Your task to perform on an android device: turn off sleep mode Image 0: 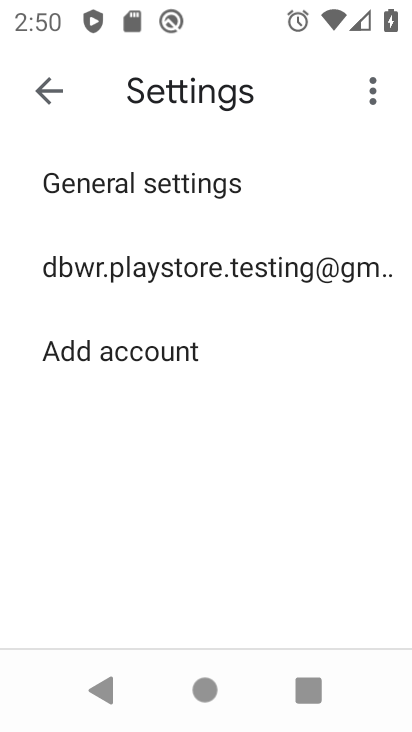
Step 0: press home button
Your task to perform on an android device: turn off sleep mode Image 1: 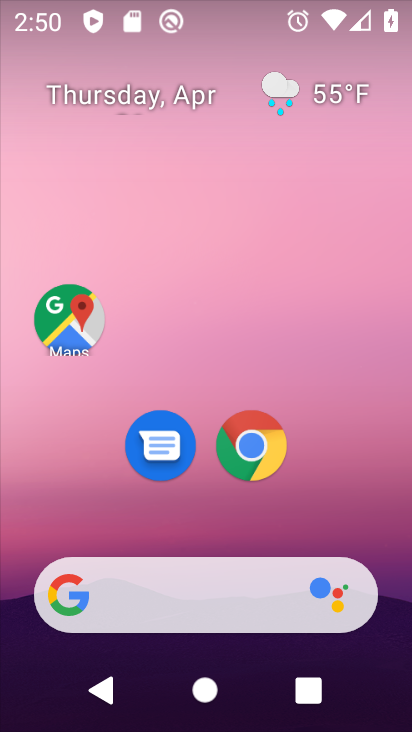
Step 1: drag from (202, 722) to (202, 97)
Your task to perform on an android device: turn off sleep mode Image 2: 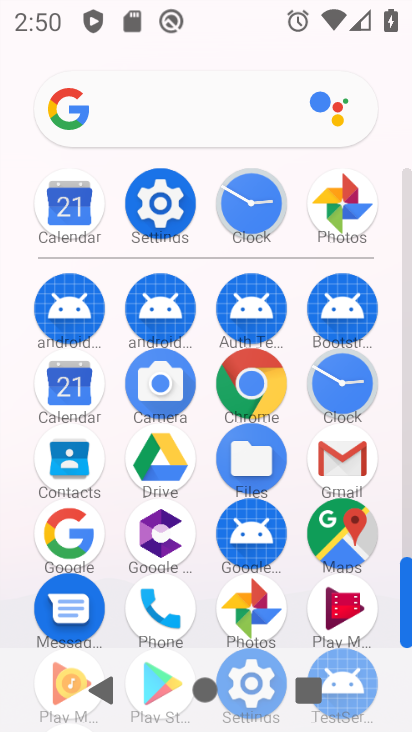
Step 2: drag from (194, 604) to (192, 210)
Your task to perform on an android device: turn off sleep mode Image 3: 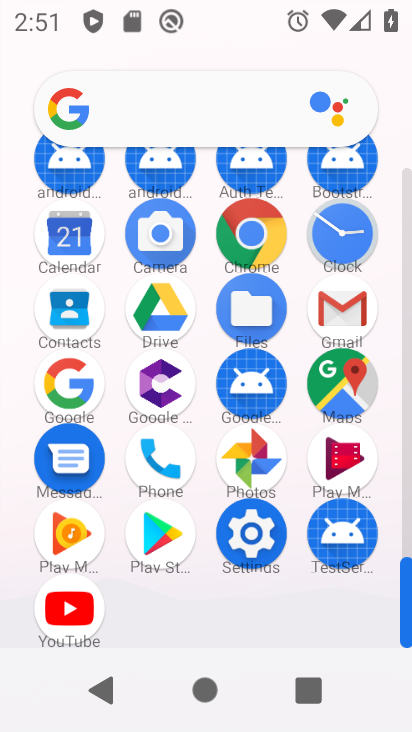
Step 3: click (257, 535)
Your task to perform on an android device: turn off sleep mode Image 4: 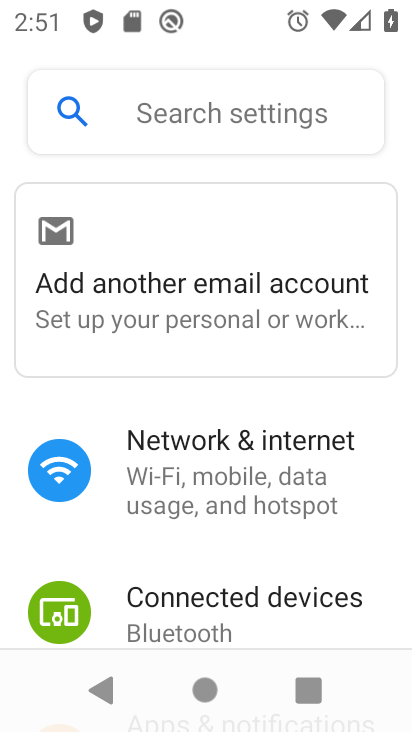
Step 4: drag from (265, 629) to (253, 316)
Your task to perform on an android device: turn off sleep mode Image 5: 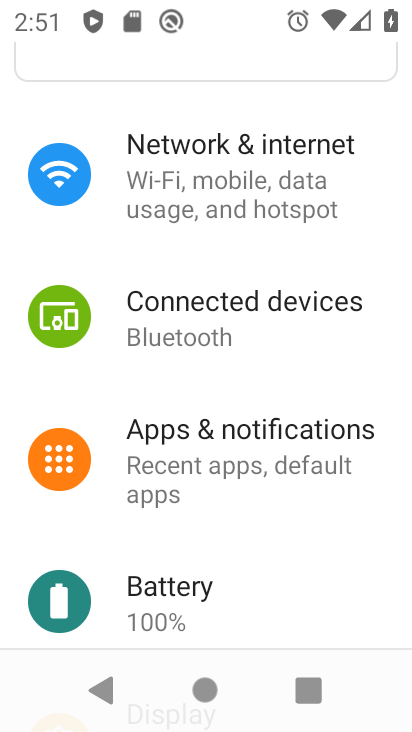
Step 5: drag from (264, 614) to (259, 334)
Your task to perform on an android device: turn off sleep mode Image 6: 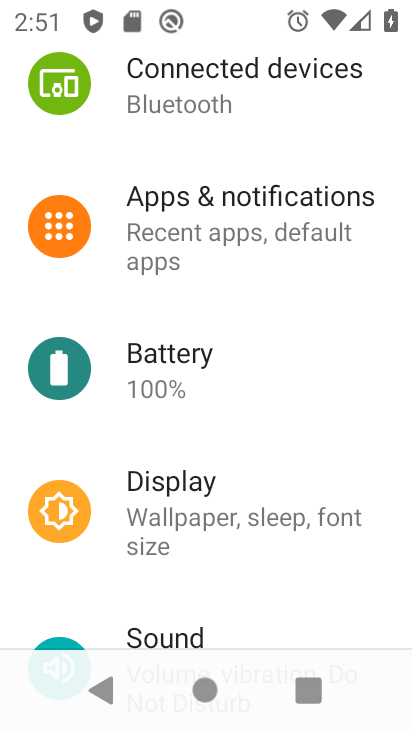
Step 6: click (198, 520)
Your task to perform on an android device: turn off sleep mode Image 7: 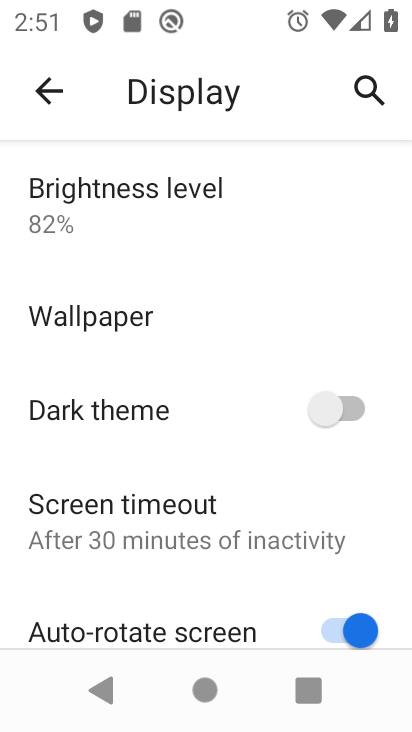
Step 7: task complete